Your task to perform on an android device: check data usage Image 0: 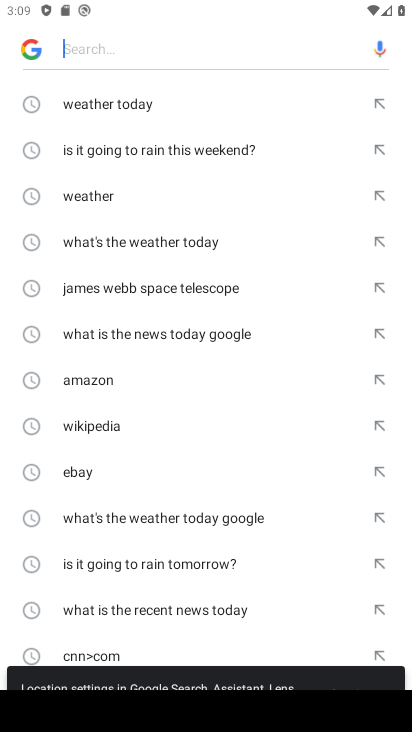
Step 0: press home button
Your task to perform on an android device: check data usage Image 1: 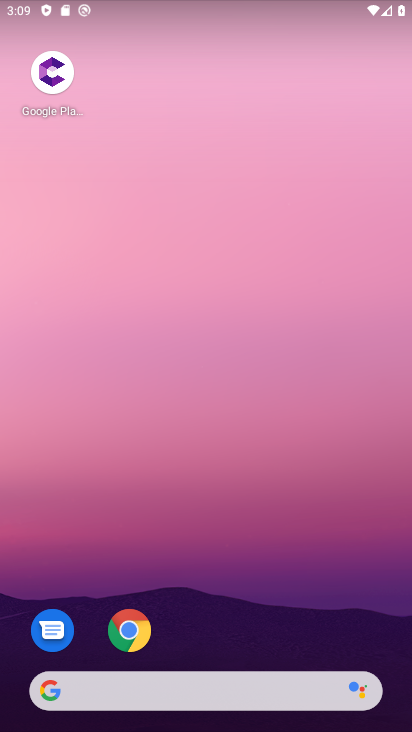
Step 1: drag from (208, 533) to (203, 81)
Your task to perform on an android device: check data usage Image 2: 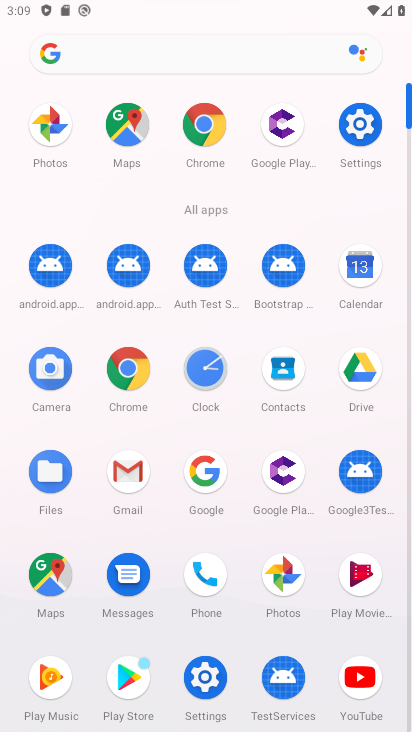
Step 2: click (358, 122)
Your task to perform on an android device: check data usage Image 3: 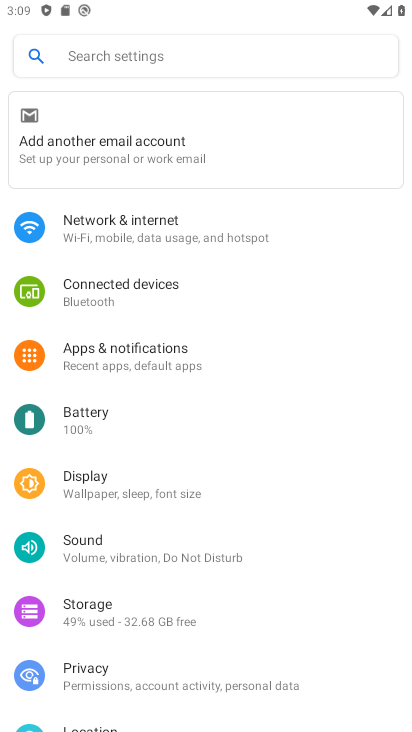
Step 3: click (124, 218)
Your task to perform on an android device: check data usage Image 4: 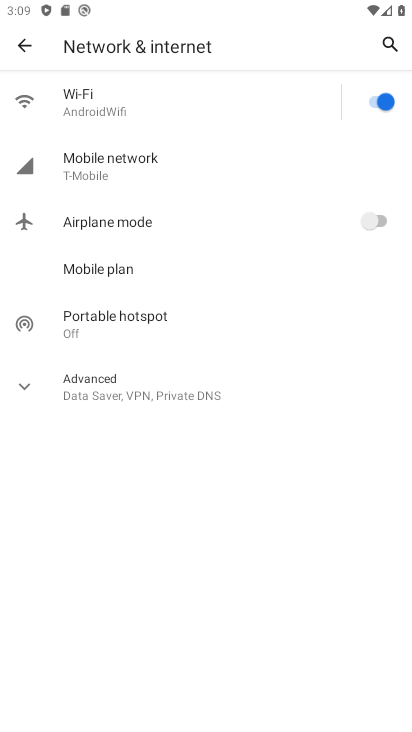
Step 4: click (108, 156)
Your task to perform on an android device: check data usage Image 5: 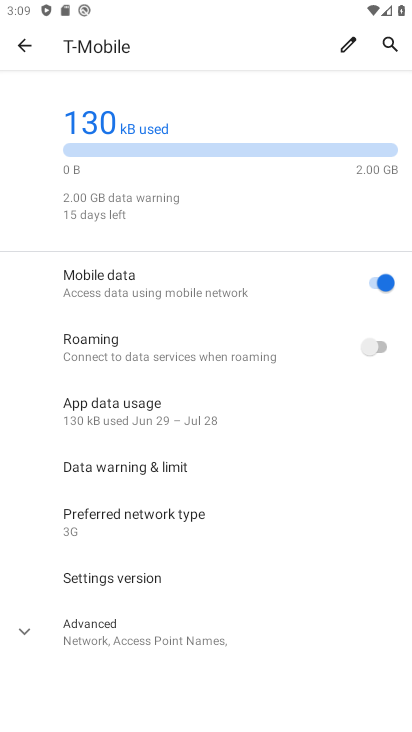
Step 5: task complete